Your task to perform on an android device: What is the news today? Image 0: 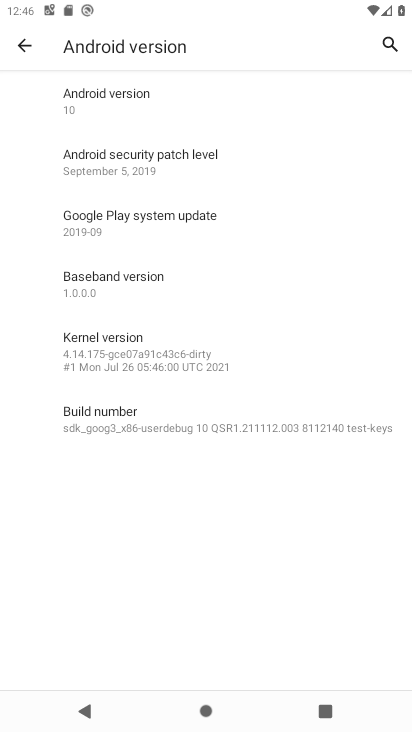
Step 0: press home button
Your task to perform on an android device: What is the news today? Image 1: 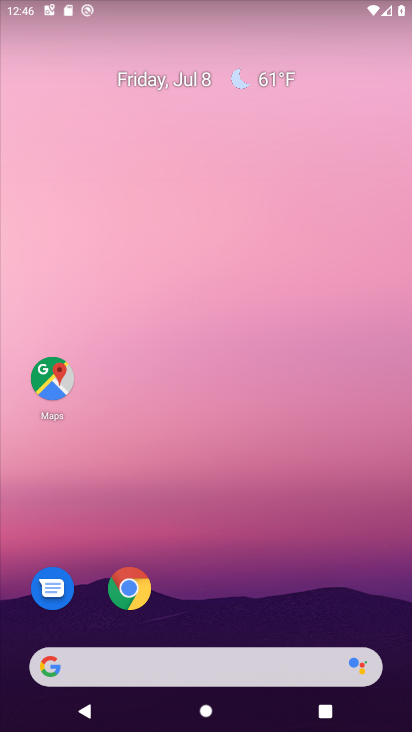
Step 1: click (195, 664)
Your task to perform on an android device: What is the news today? Image 2: 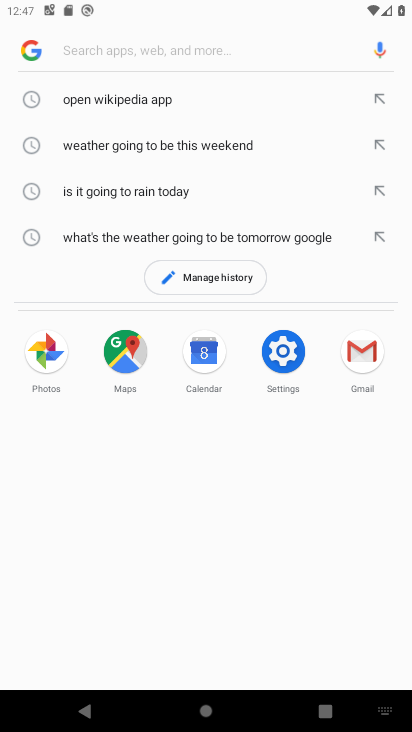
Step 2: type "news today"
Your task to perform on an android device: What is the news today? Image 3: 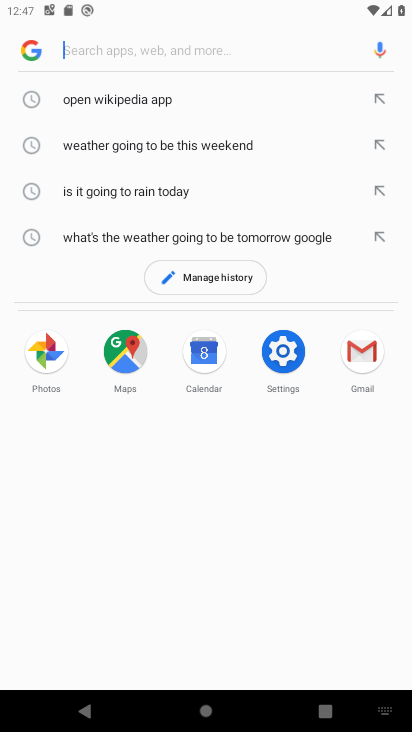
Step 3: click (110, 50)
Your task to perform on an android device: What is the news today? Image 4: 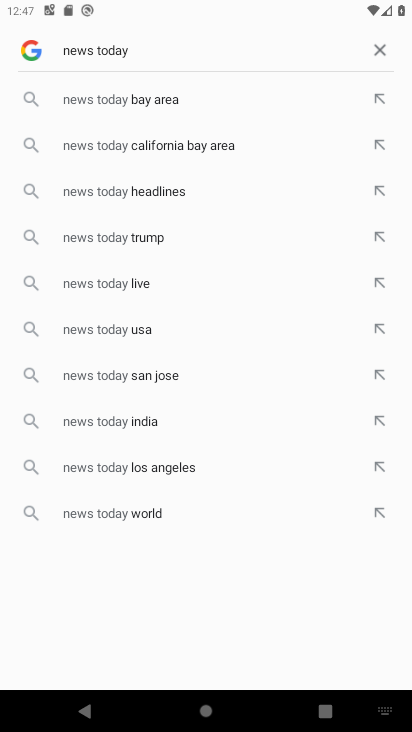
Step 4: press enter
Your task to perform on an android device: What is the news today? Image 5: 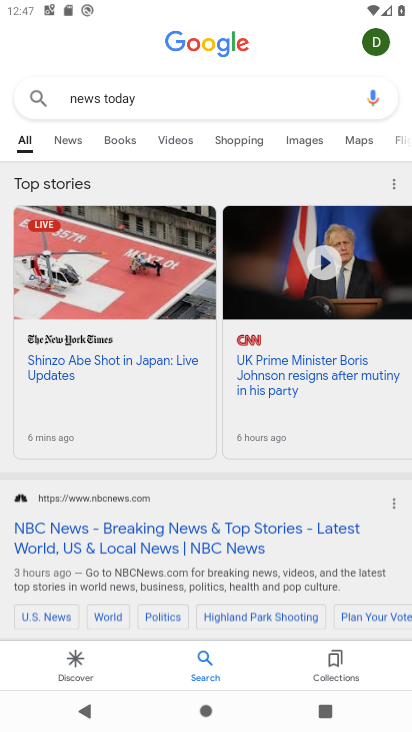
Step 5: task complete